Your task to perform on an android device: Open calendar and show me the first week of next month Image 0: 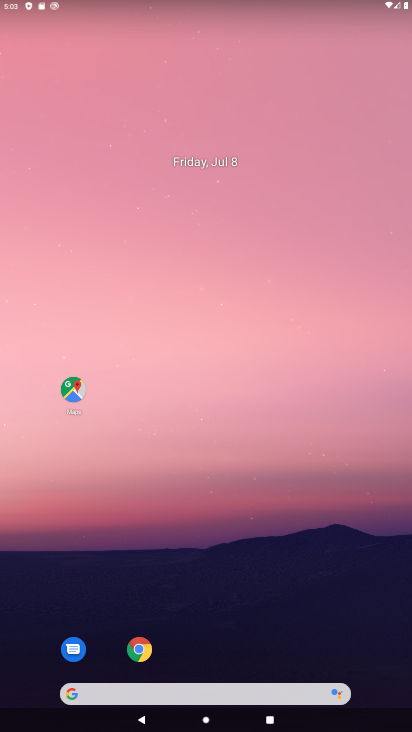
Step 0: drag from (264, 606) to (208, 78)
Your task to perform on an android device: Open calendar and show me the first week of next month Image 1: 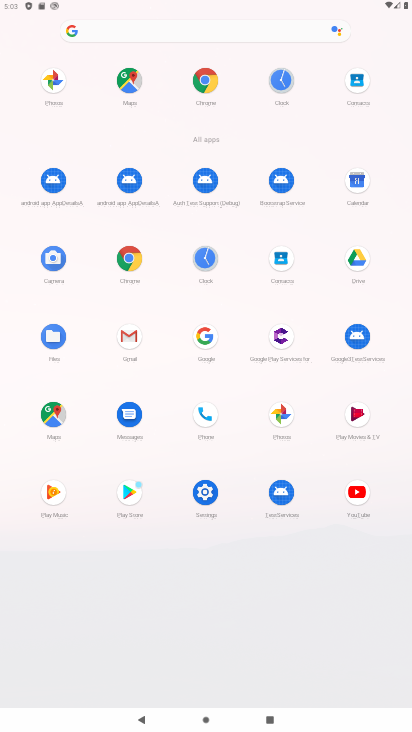
Step 1: click (361, 177)
Your task to perform on an android device: Open calendar and show me the first week of next month Image 2: 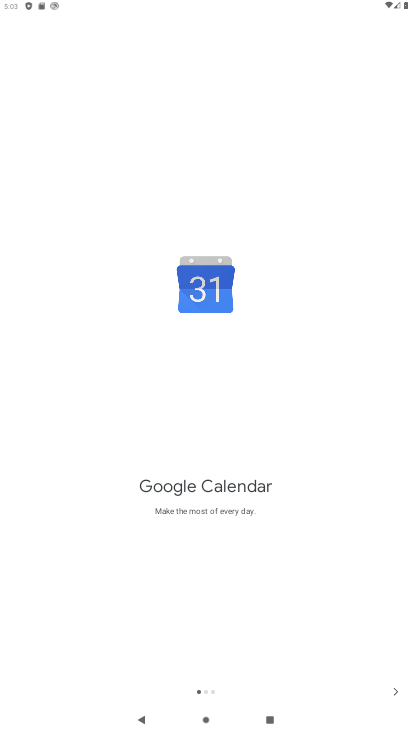
Step 2: click (398, 687)
Your task to perform on an android device: Open calendar and show me the first week of next month Image 3: 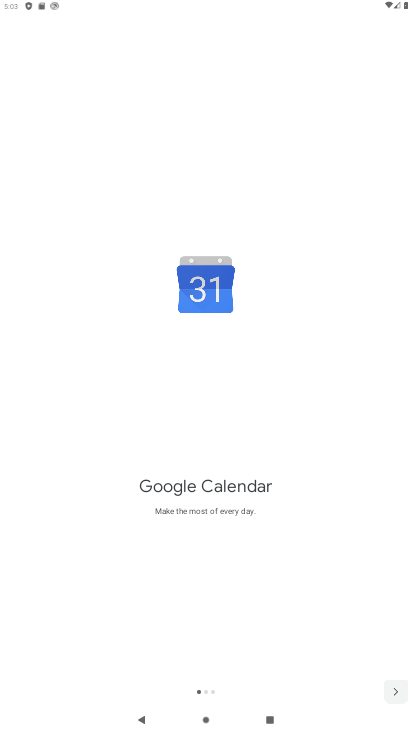
Step 3: click (398, 687)
Your task to perform on an android device: Open calendar and show me the first week of next month Image 4: 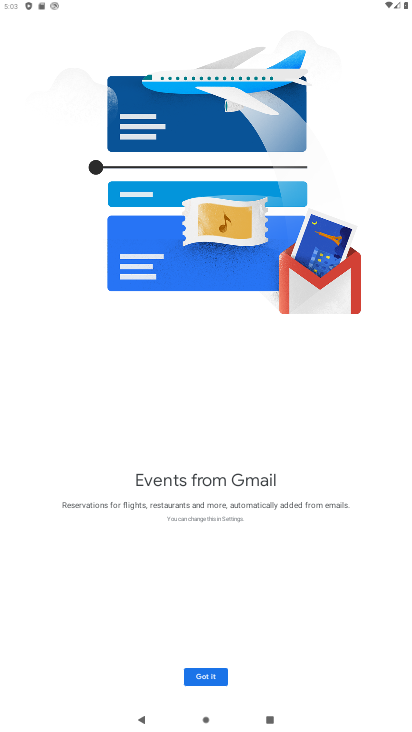
Step 4: click (212, 671)
Your task to perform on an android device: Open calendar and show me the first week of next month Image 5: 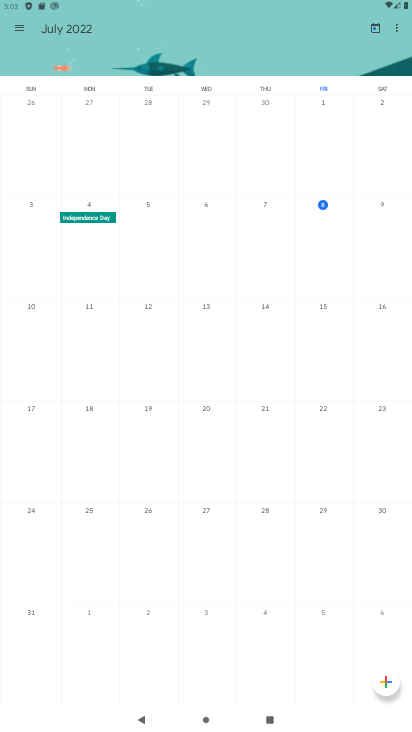
Step 5: click (58, 30)
Your task to perform on an android device: Open calendar and show me the first week of next month Image 6: 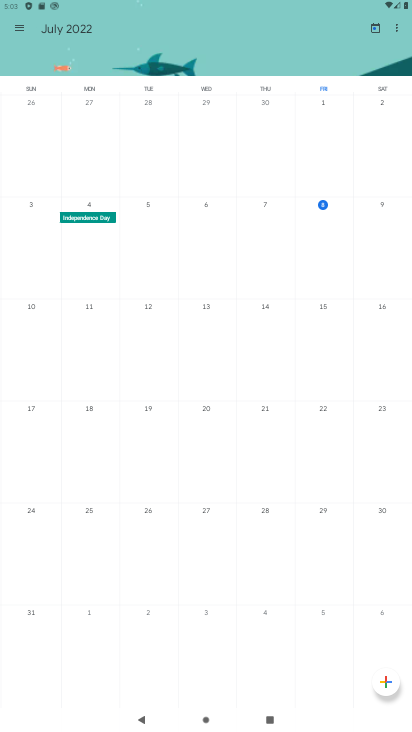
Step 6: click (67, 31)
Your task to perform on an android device: Open calendar and show me the first week of next month Image 7: 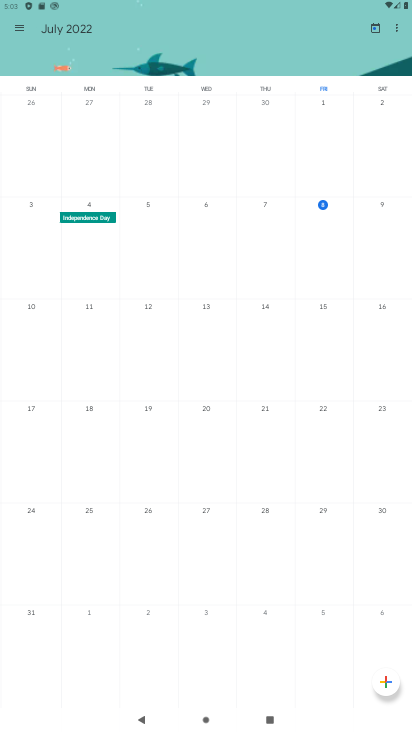
Step 7: click (58, 26)
Your task to perform on an android device: Open calendar and show me the first week of next month Image 8: 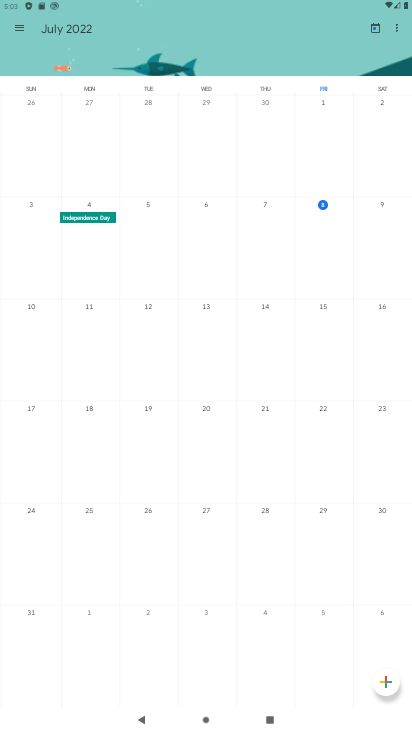
Step 8: drag from (373, 304) to (33, 265)
Your task to perform on an android device: Open calendar and show me the first week of next month Image 9: 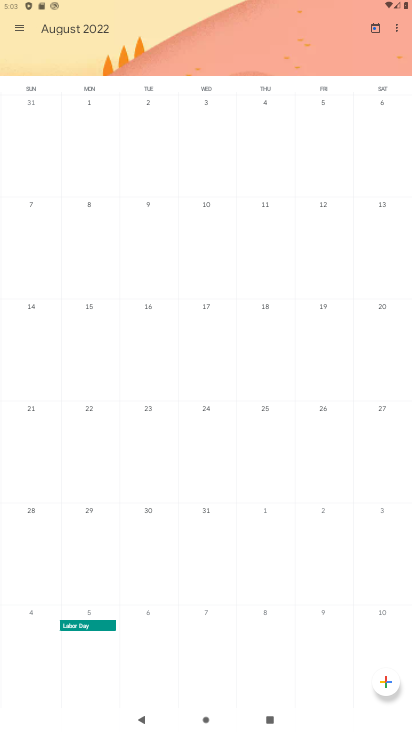
Step 9: click (380, 104)
Your task to perform on an android device: Open calendar and show me the first week of next month Image 10: 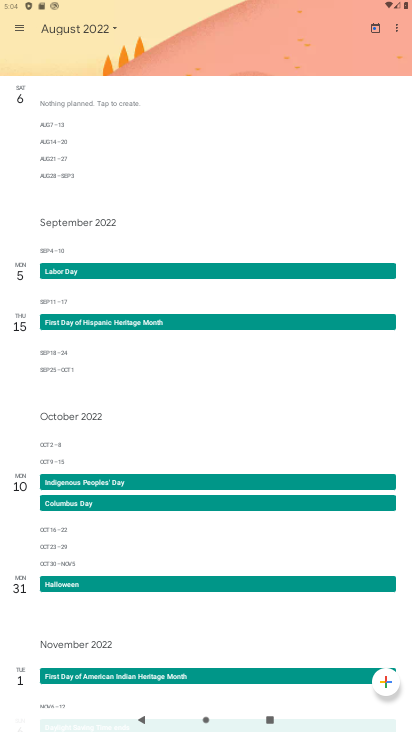
Step 10: click (20, 26)
Your task to perform on an android device: Open calendar and show me the first week of next month Image 11: 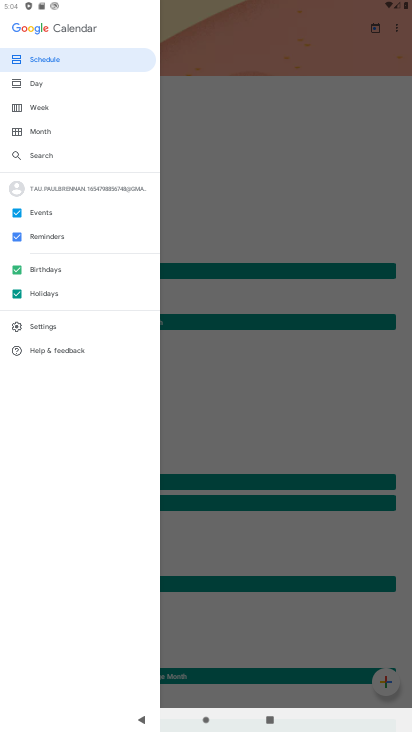
Step 11: click (43, 104)
Your task to perform on an android device: Open calendar and show me the first week of next month Image 12: 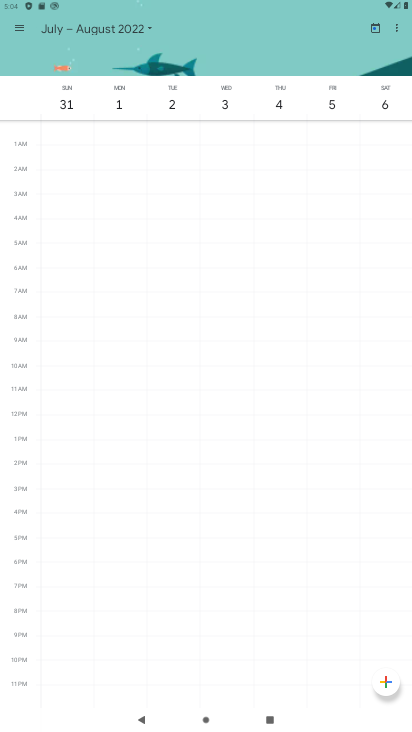
Step 12: task complete